Your task to perform on an android device: set the timer Image 0: 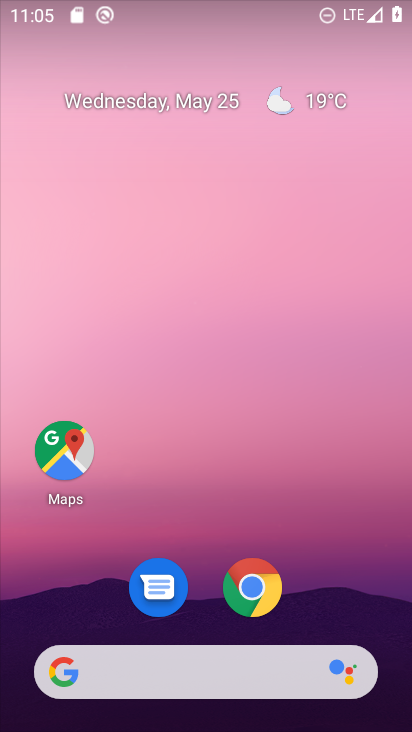
Step 0: drag from (383, 596) to (284, 72)
Your task to perform on an android device: set the timer Image 1: 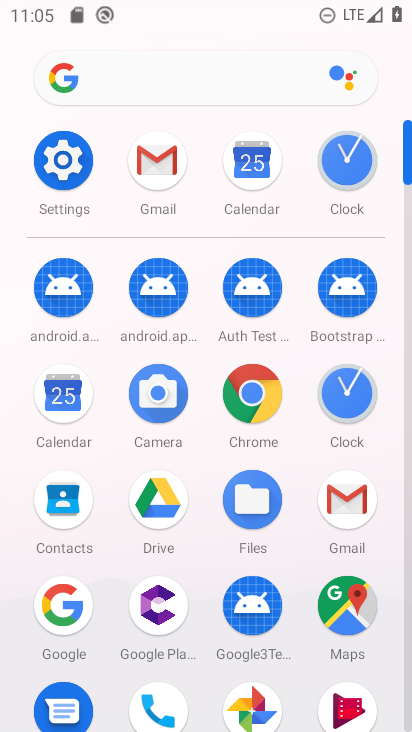
Step 1: click (347, 391)
Your task to perform on an android device: set the timer Image 2: 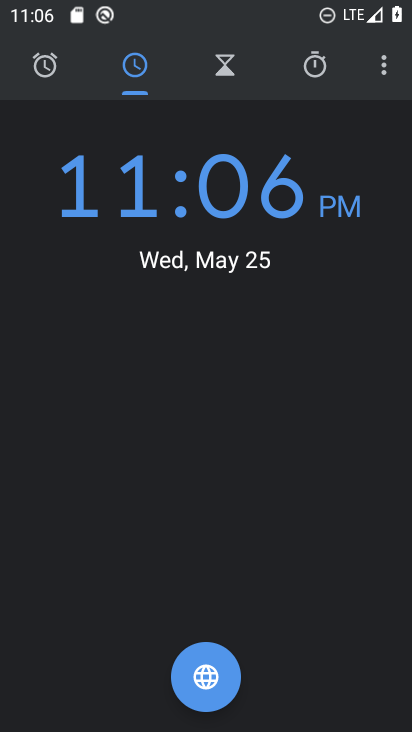
Step 2: click (384, 73)
Your task to perform on an android device: set the timer Image 3: 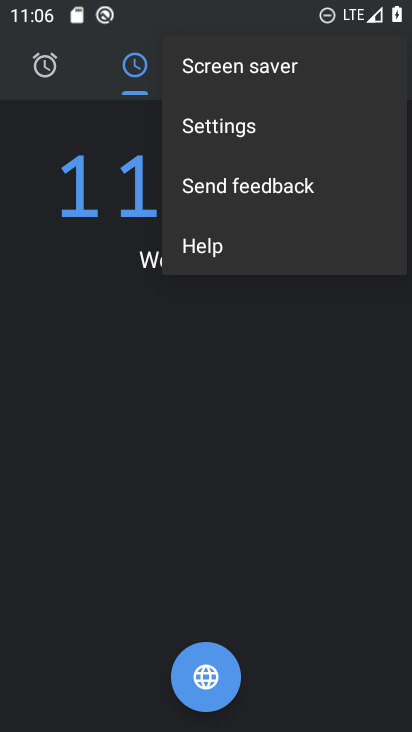
Step 3: click (186, 506)
Your task to perform on an android device: set the timer Image 4: 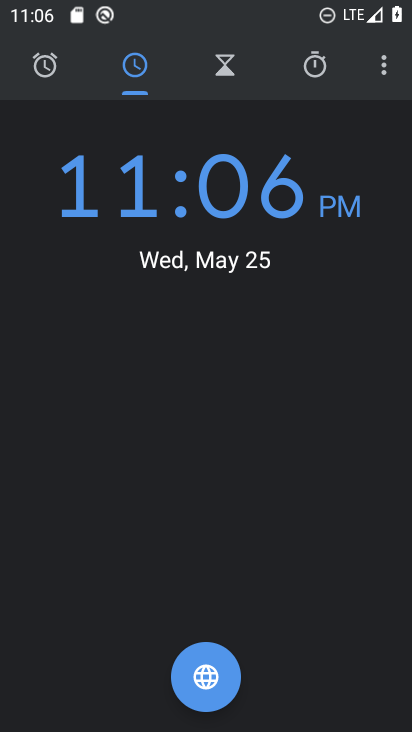
Step 4: click (218, 62)
Your task to perform on an android device: set the timer Image 5: 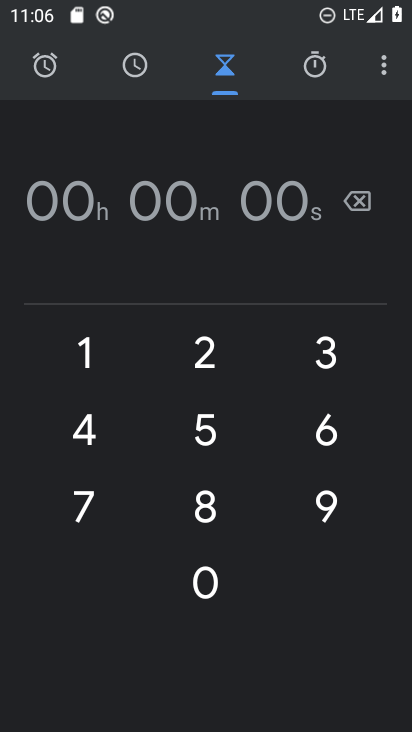
Step 5: click (77, 344)
Your task to perform on an android device: set the timer Image 6: 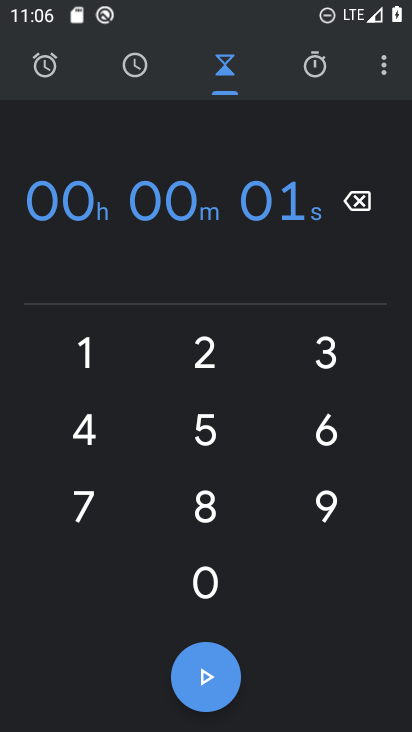
Step 6: click (325, 345)
Your task to perform on an android device: set the timer Image 7: 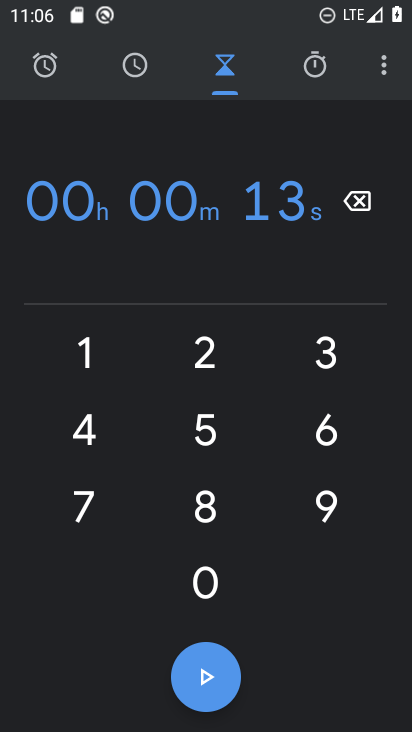
Step 7: click (214, 591)
Your task to perform on an android device: set the timer Image 8: 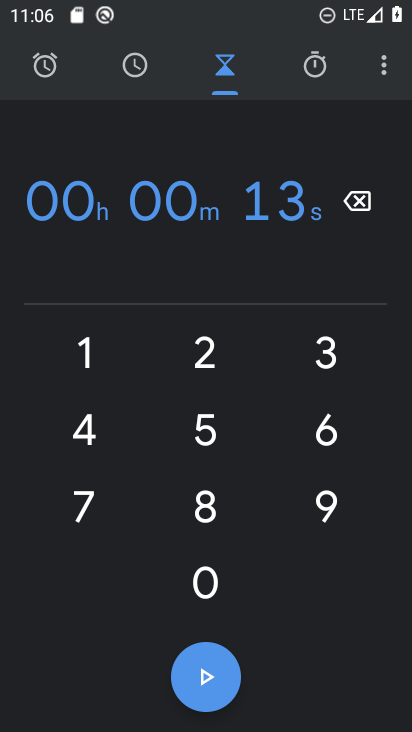
Step 8: click (214, 591)
Your task to perform on an android device: set the timer Image 9: 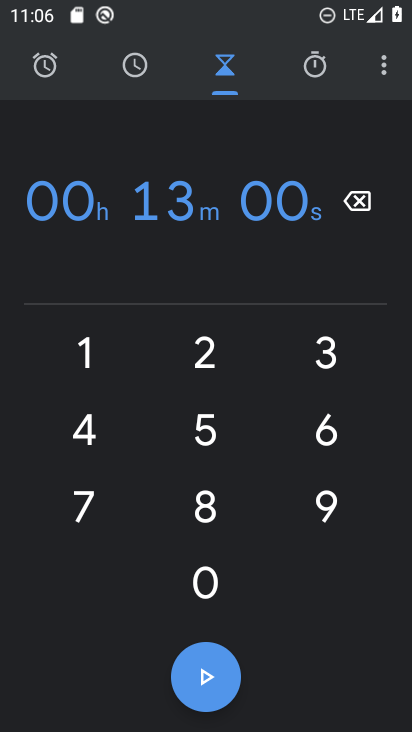
Step 9: click (214, 591)
Your task to perform on an android device: set the timer Image 10: 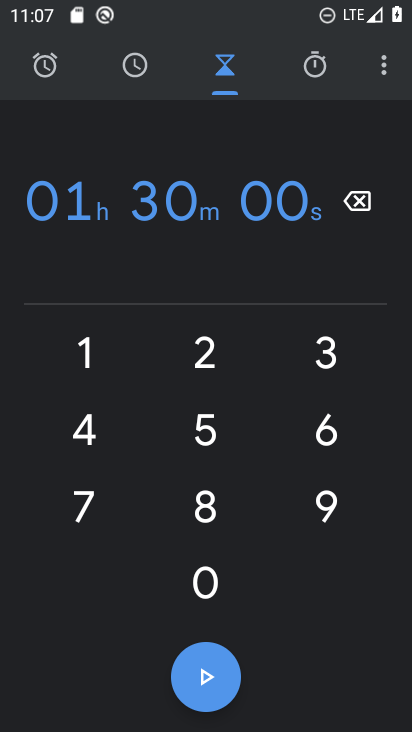
Step 10: task complete